Your task to perform on an android device: change notifications settings Image 0: 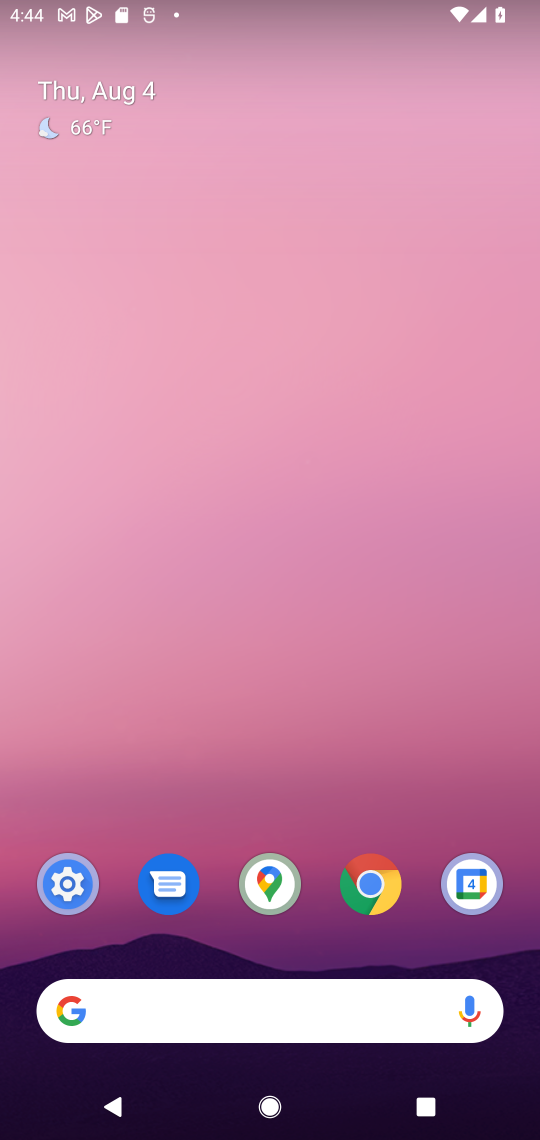
Step 0: click (85, 889)
Your task to perform on an android device: change notifications settings Image 1: 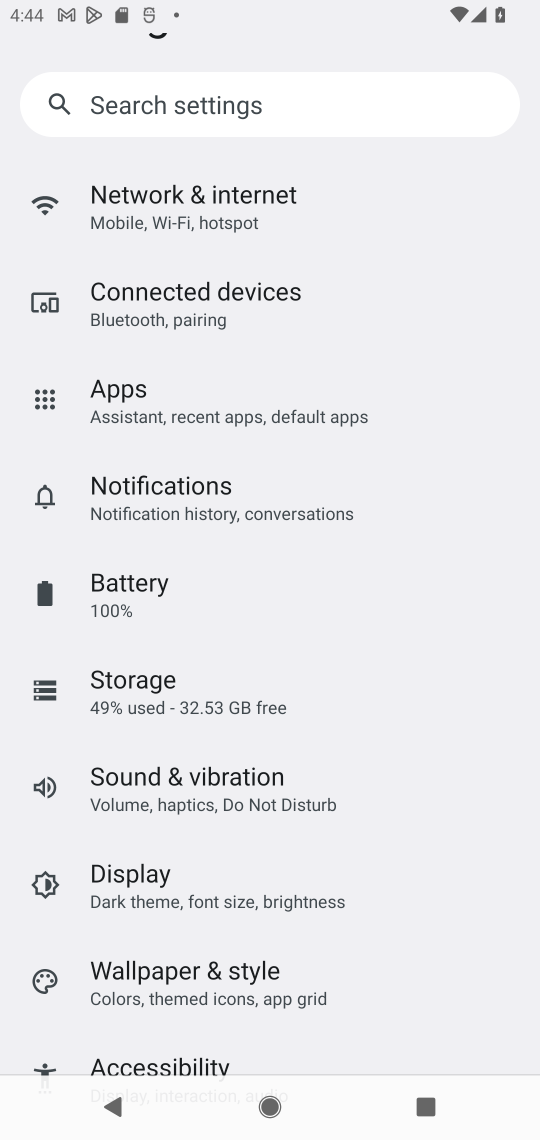
Step 1: task complete